Your task to perform on an android device: turn off picture-in-picture Image 0: 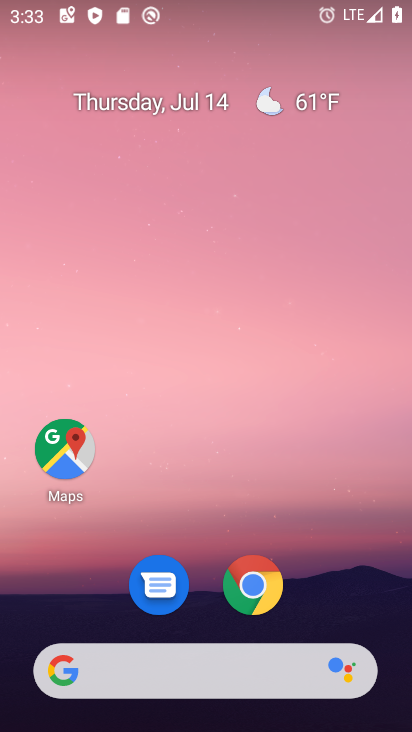
Step 0: click (255, 595)
Your task to perform on an android device: turn off picture-in-picture Image 1: 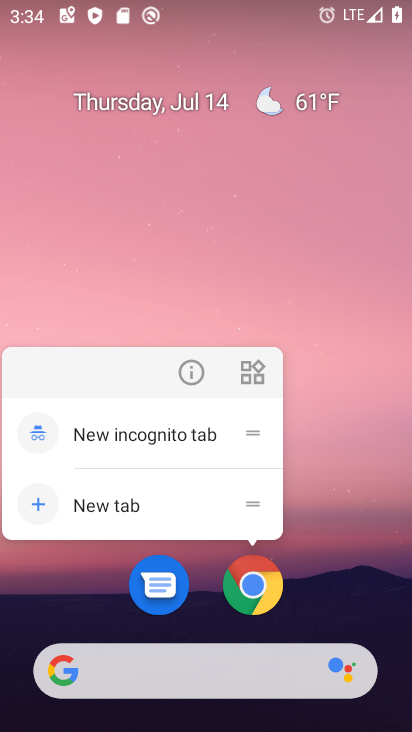
Step 1: click (195, 370)
Your task to perform on an android device: turn off picture-in-picture Image 2: 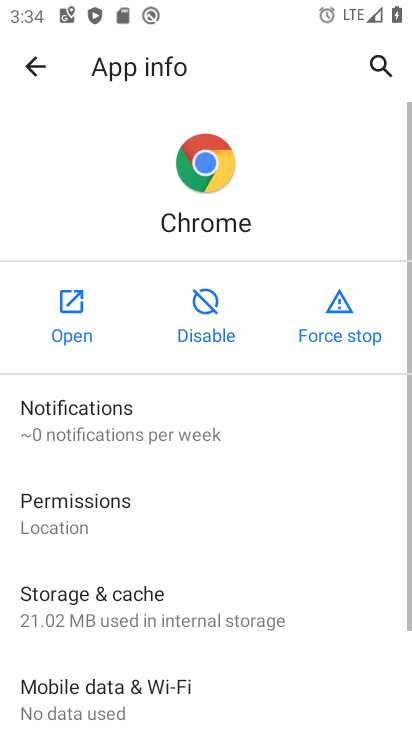
Step 2: drag from (263, 565) to (277, 36)
Your task to perform on an android device: turn off picture-in-picture Image 3: 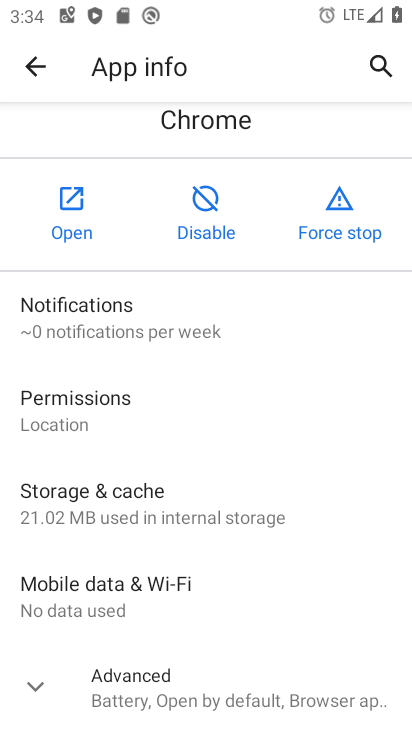
Step 3: click (39, 686)
Your task to perform on an android device: turn off picture-in-picture Image 4: 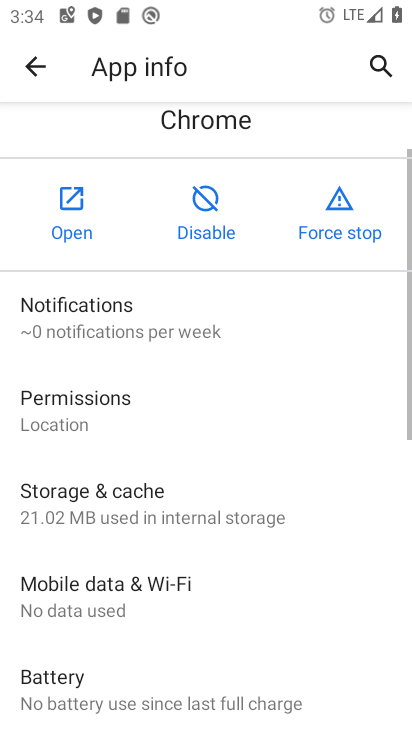
Step 4: drag from (240, 611) to (297, 24)
Your task to perform on an android device: turn off picture-in-picture Image 5: 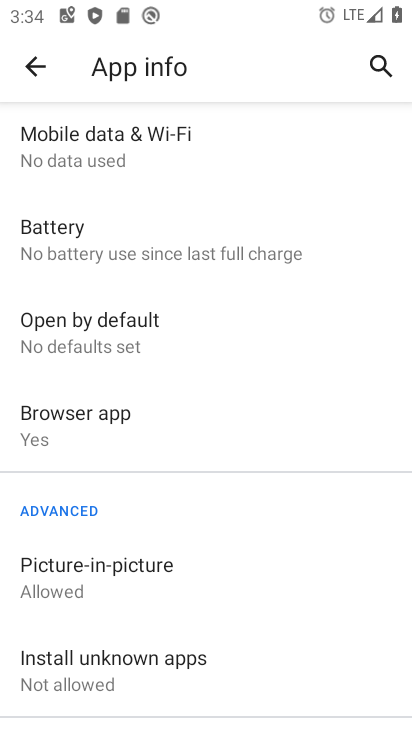
Step 5: click (112, 577)
Your task to perform on an android device: turn off picture-in-picture Image 6: 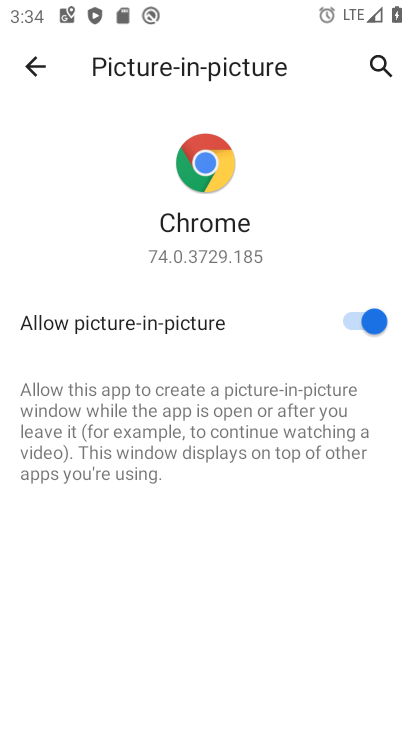
Step 6: click (360, 314)
Your task to perform on an android device: turn off picture-in-picture Image 7: 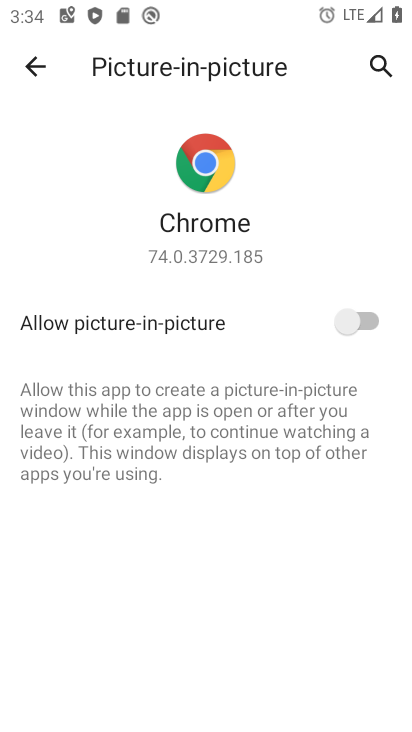
Step 7: task complete